Your task to perform on an android device: check google app version Image 0: 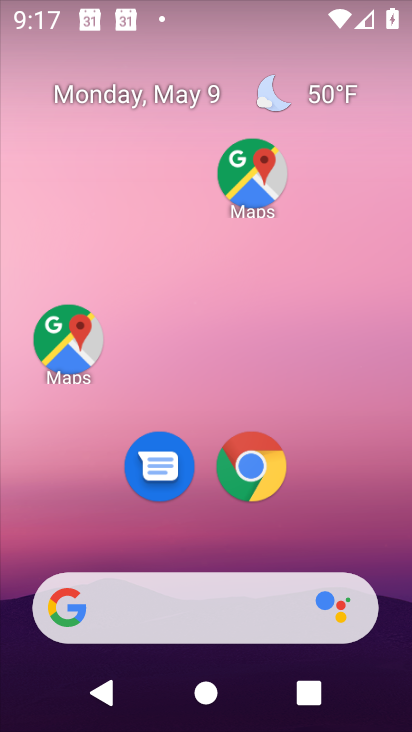
Step 0: drag from (215, 520) to (172, 100)
Your task to perform on an android device: check google app version Image 1: 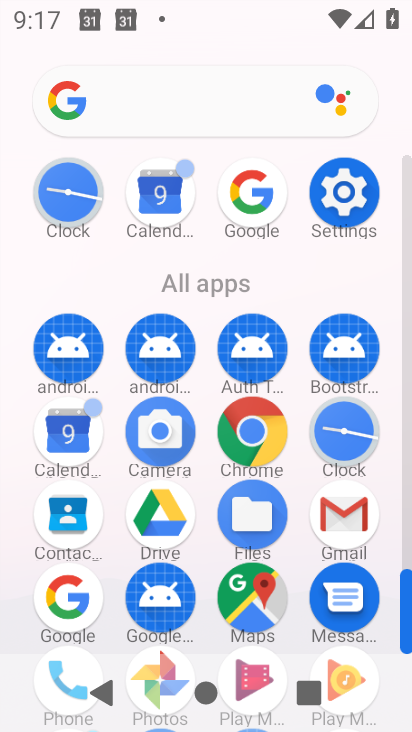
Step 1: click (60, 607)
Your task to perform on an android device: check google app version Image 2: 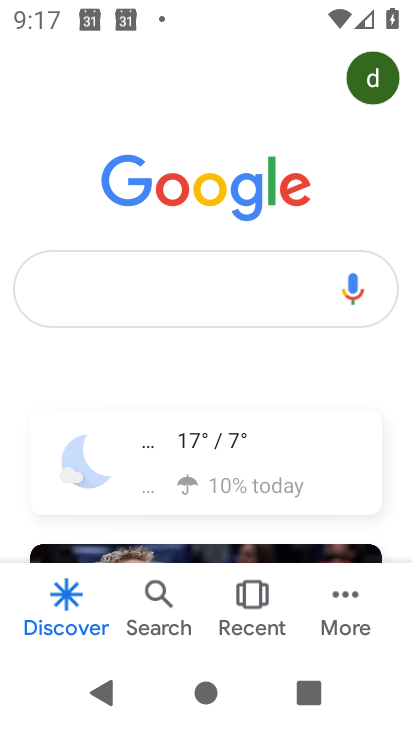
Step 2: click (354, 614)
Your task to perform on an android device: check google app version Image 3: 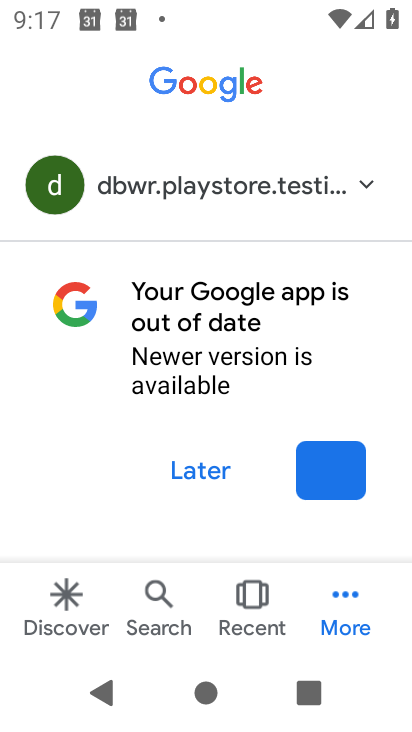
Step 3: drag from (219, 549) to (158, 203)
Your task to perform on an android device: check google app version Image 4: 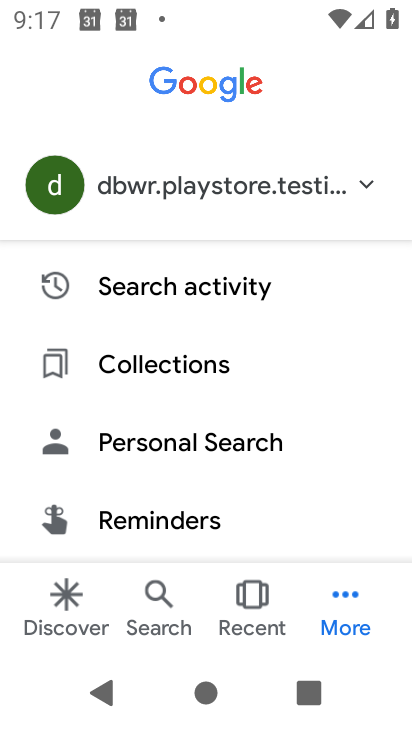
Step 4: drag from (205, 486) to (170, 222)
Your task to perform on an android device: check google app version Image 5: 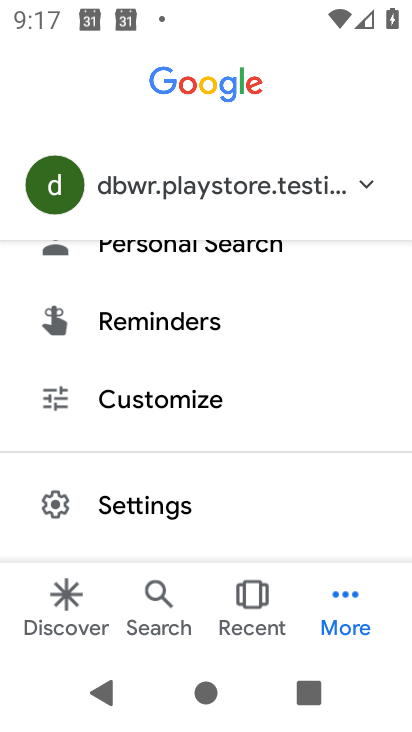
Step 5: click (200, 514)
Your task to perform on an android device: check google app version Image 6: 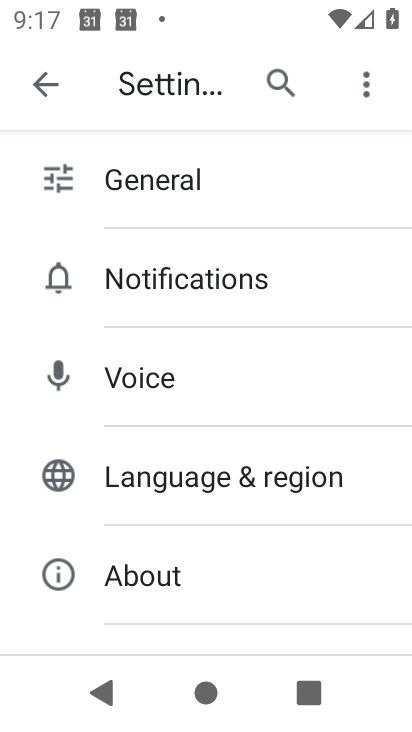
Step 6: click (193, 581)
Your task to perform on an android device: check google app version Image 7: 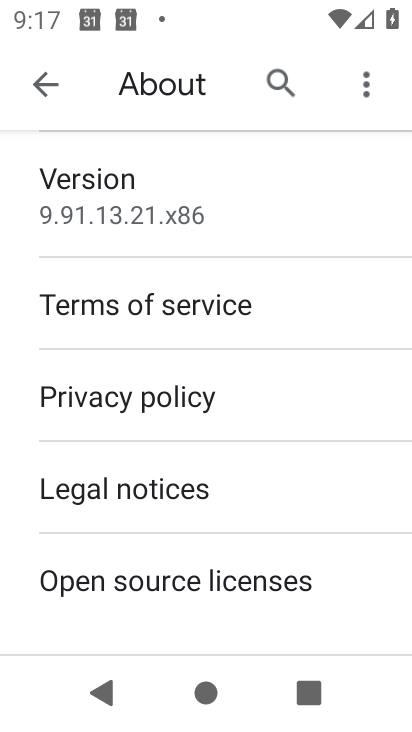
Step 7: click (188, 225)
Your task to perform on an android device: check google app version Image 8: 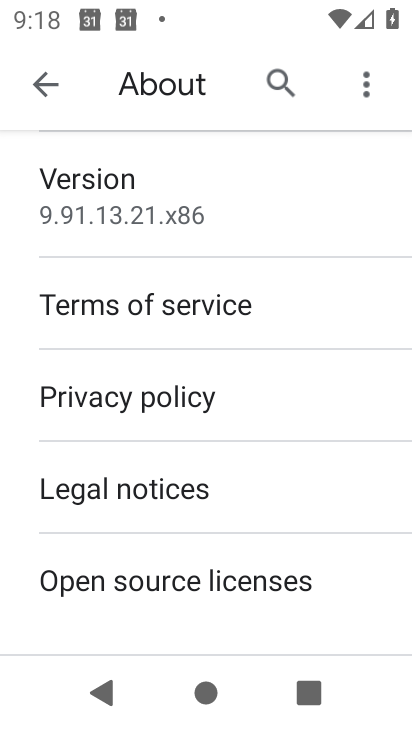
Step 8: task complete